Your task to perform on an android device: turn notification dots off Image 0: 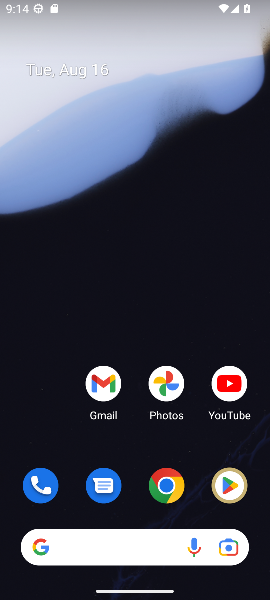
Step 0: drag from (173, 441) to (128, 1)
Your task to perform on an android device: turn notification dots off Image 1: 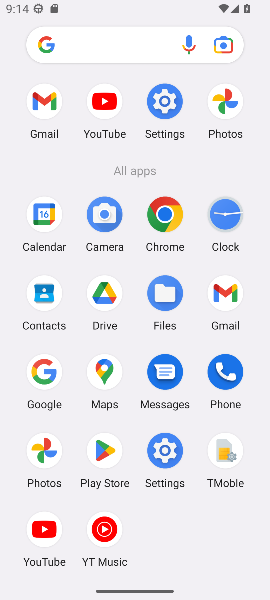
Step 1: click (157, 458)
Your task to perform on an android device: turn notification dots off Image 2: 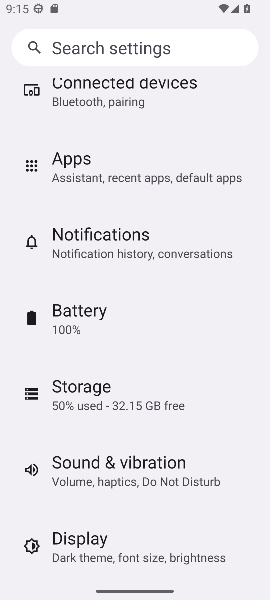
Step 2: click (86, 252)
Your task to perform on an android device: turn notification dots off Image 3: 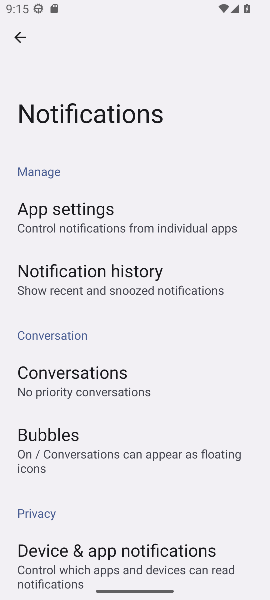
Step 3: task complete